Your task to perform on an android device: change the clock display to digital Image 0: 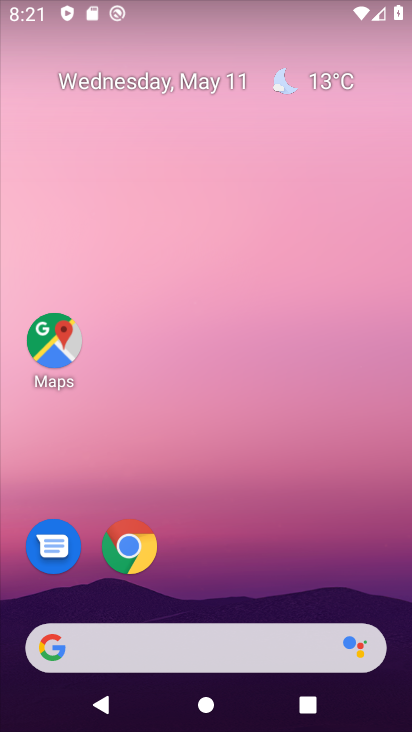
Step 0: drag from (252, 503) to (307, 68)
Your task to perform on an android device: change the clock display to digital Image 1: 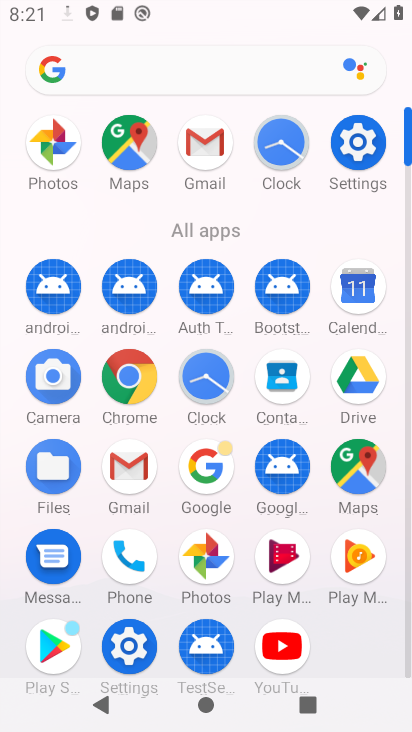
Step 1: click (217, 367)
Your task to perform on an android device: change the clock display to digital Image 2: 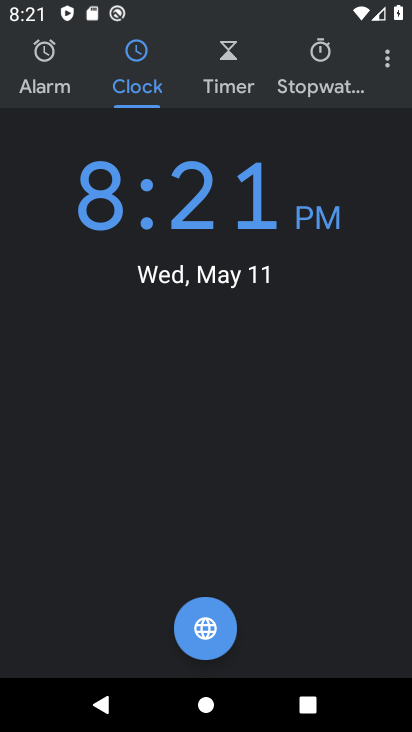
Step 2: click (387, 57)
Your task to perform on an android device: change the clock display to digital Image 3: 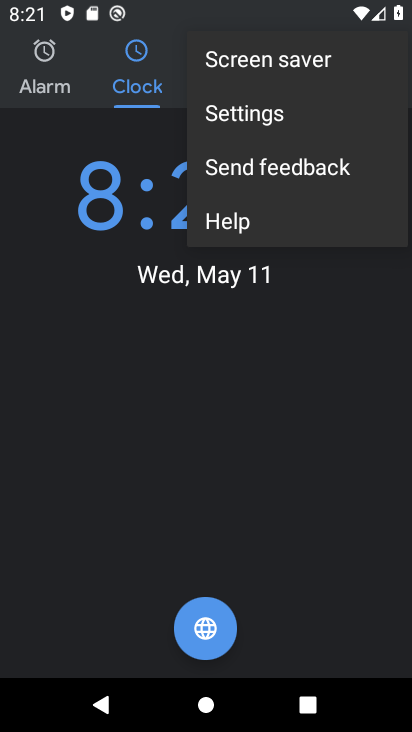
Step 3: click (245, 126)
Your task to perform on an android device: change the clock display to digital Image 4: 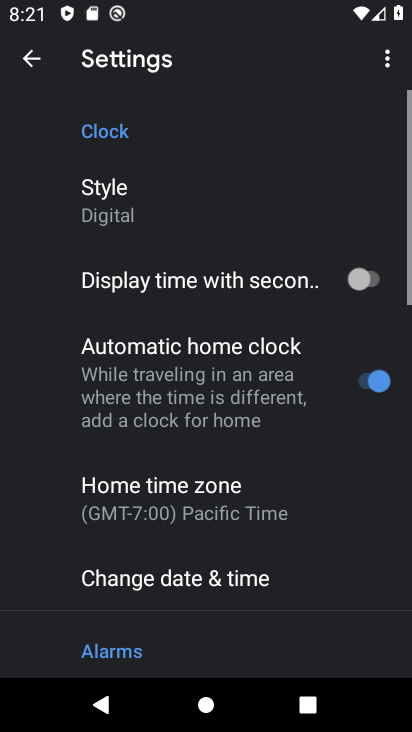
Step 4: click (108, 209)
Your task to perform on an android device: change the clock display to digital Image 5: 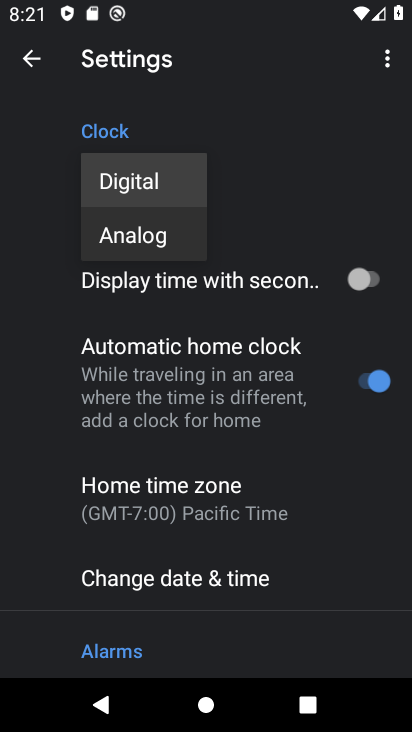
Step 5: click (120, 186)
Your task to perform on an android device: change the clock display to digital Image 6: 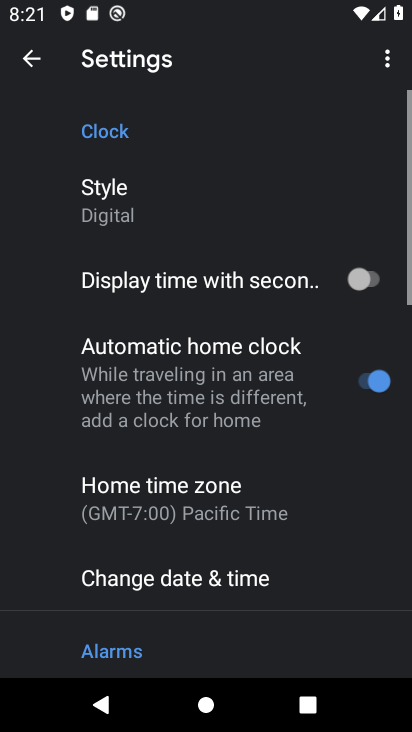
Step 6: task complete